Your task to perform on an android device: find snoozed emails in the gmail app Image 0: 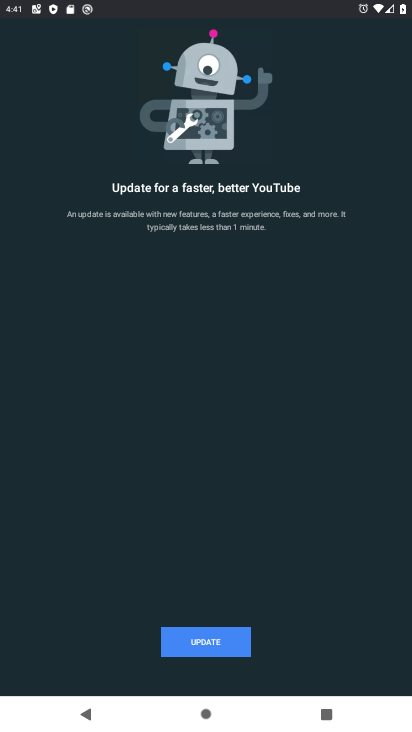
Step 0: press home button
Your task to perform on an android device: find snoozed emails in the gmail app Image 1: 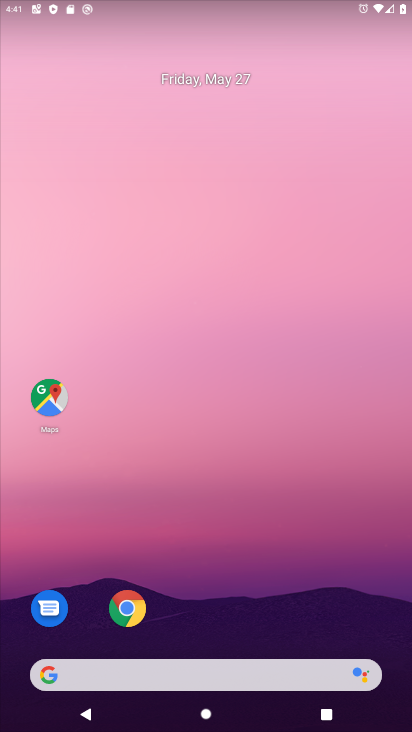
Step 1: drag from (185, 594) to (172, 339)
Your task to perform on an android device: find snoozed emails in the gmail app Image 2: 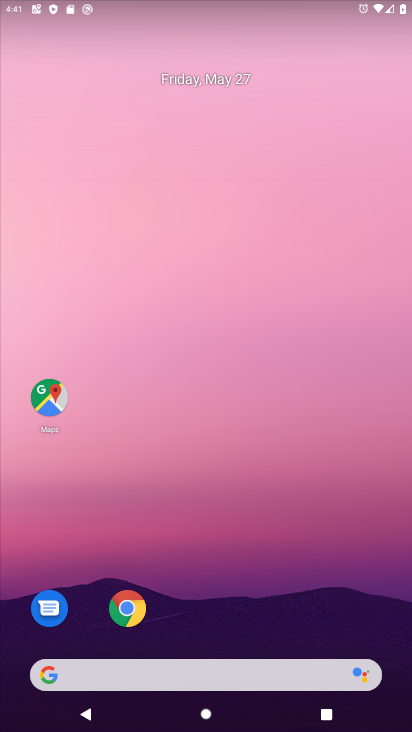
Step 2: drag from (242, 658) to (259, 115)
Your task to perform on an android device: find snoozed emails in the gmail app Image 3: 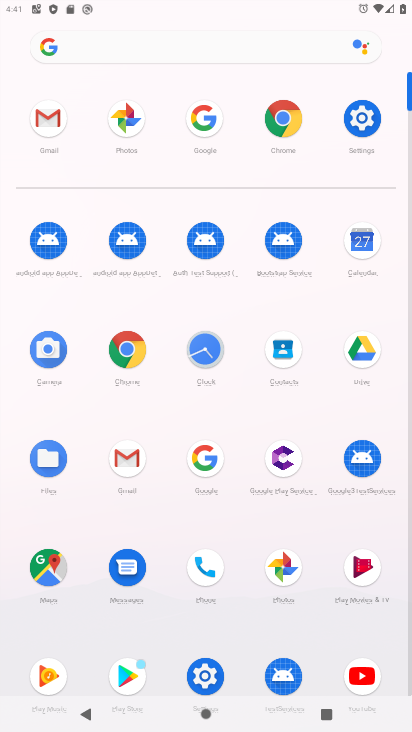
Step 3: click (124, 460)
Your task to perform on an android device: find snoozed emails in the gmail app Image 4: 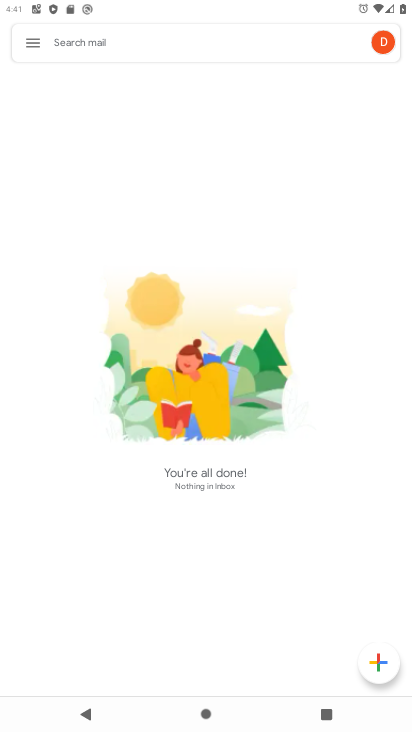
Step 4: click (36, 40)
Your task to perform on an android device: find snoozed emails in the gmail app Image 5: 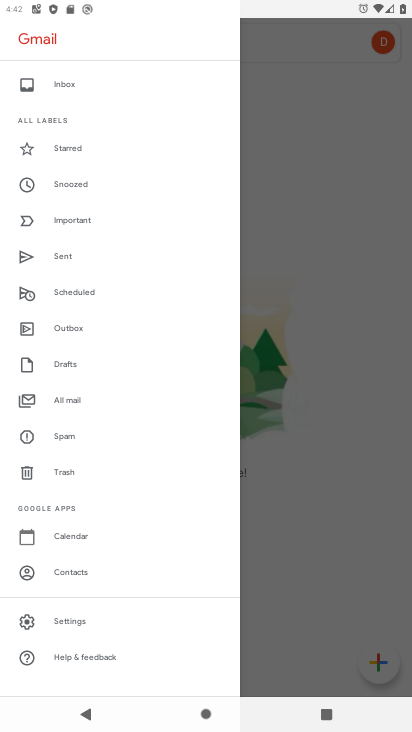
Step 5: click (71, 184)
Your task to perform on an android device: find snoozed emails in the gmail app Image 6: 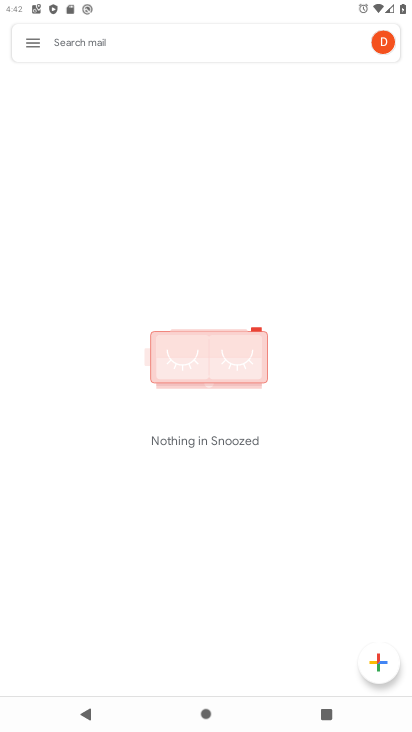
Step 6: click (75, 187)
Your task to perform on an android device: find snoozed emails in the gmail app Image 7: 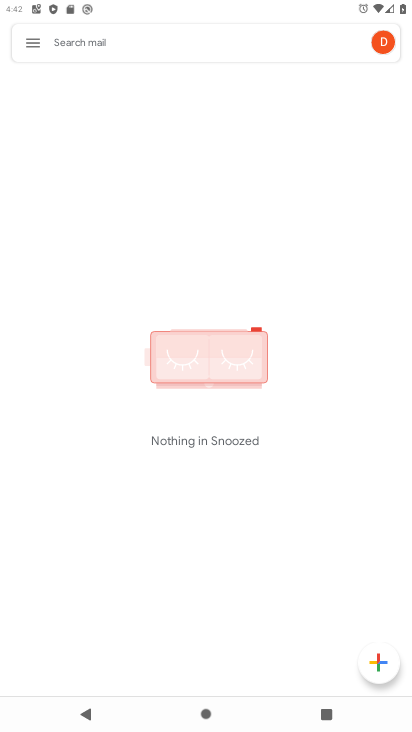
Step 7: task complete